Your task to perform on an android device: turn on the 12-hour format for clock Image 0: 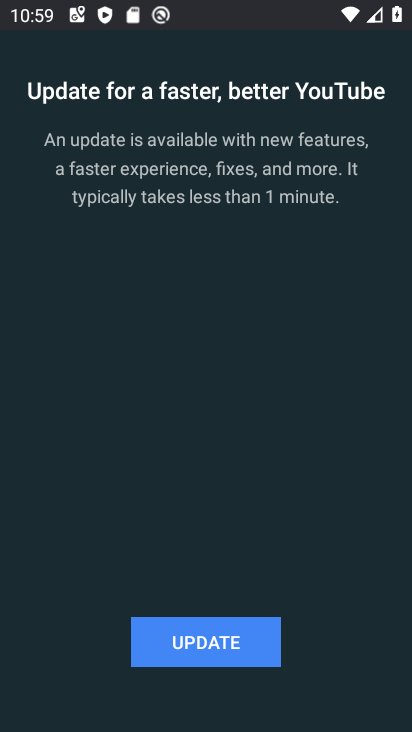
Step 0: press back button
Your task to perform on an android device: turn on the 12-hour format for clock Image 1: 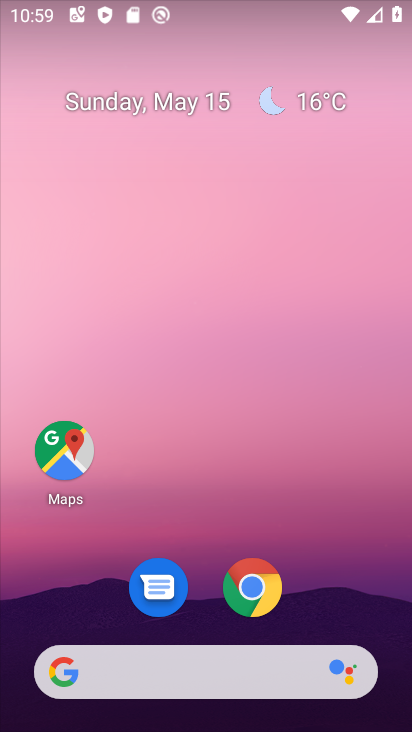
Step 1: drag from (353, 567) to (217, 22)
Your task to perform on an android device: turn on the 12-hour format for clock Image 2: 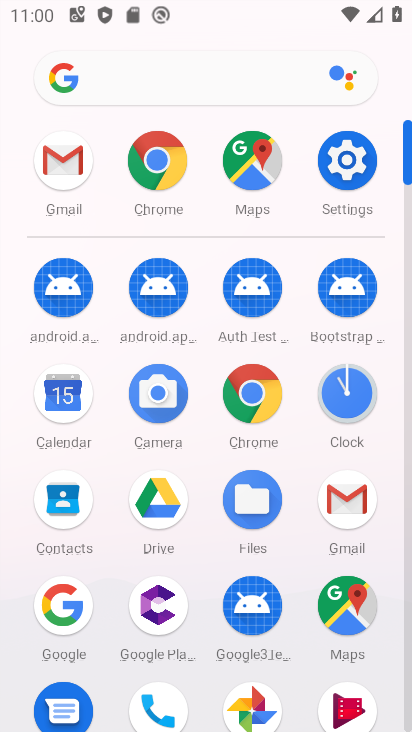
Step 2: click (343, 392)
Your task to perform on an android device: turn on the 12-hour format for clock Image 3: 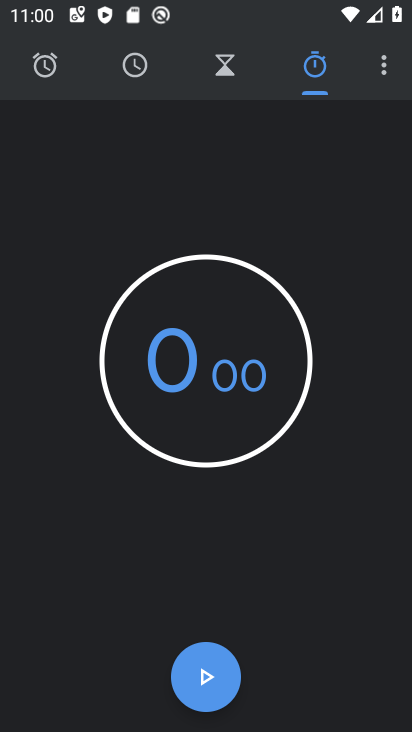
Step 3: drag from (384, 61) to (341, 125)
Your task to perform on an android device: turn on the 12-hour format for clock Image 4: 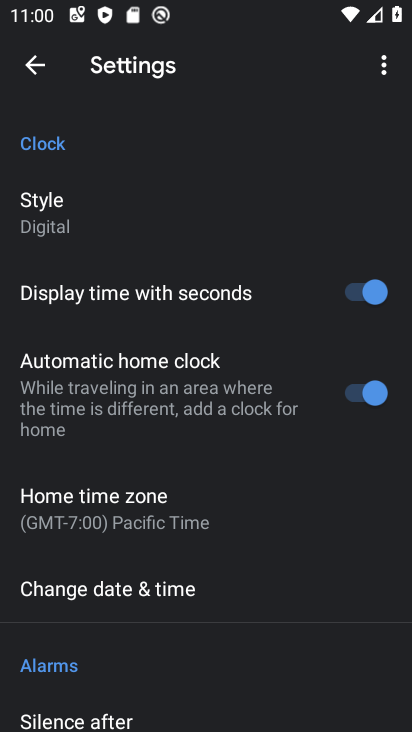
Step 4: click (200, 588)
Your task to perform on an android device: turn on the 12-hour format for clock Image 5: 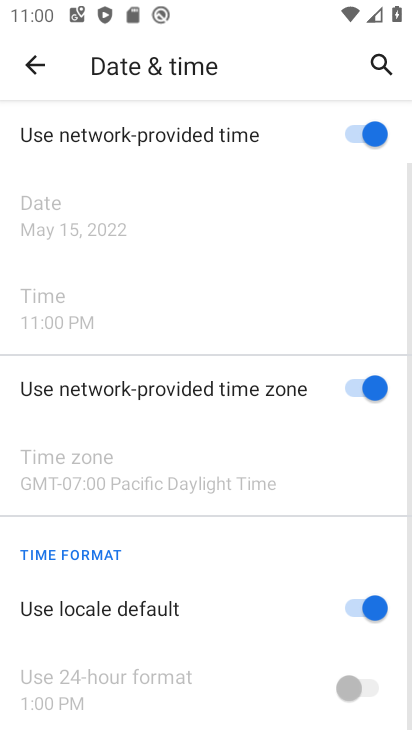
Step 5: task complete